Your task to perform on an android device: Go to location settings Image 0: 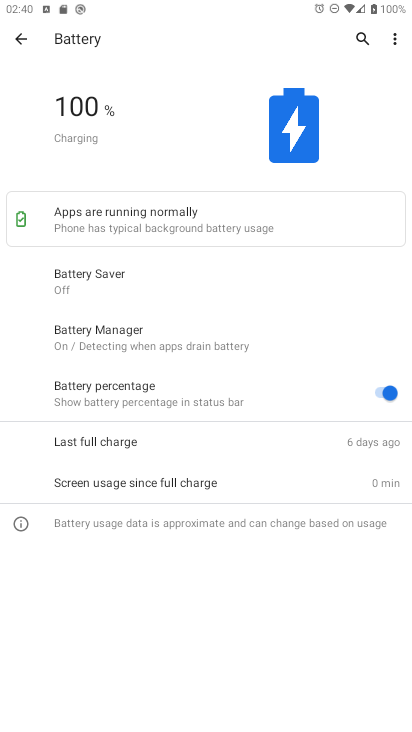
Step 0: press home button
Your task to perform on an android device: Go to location settings Image 1: 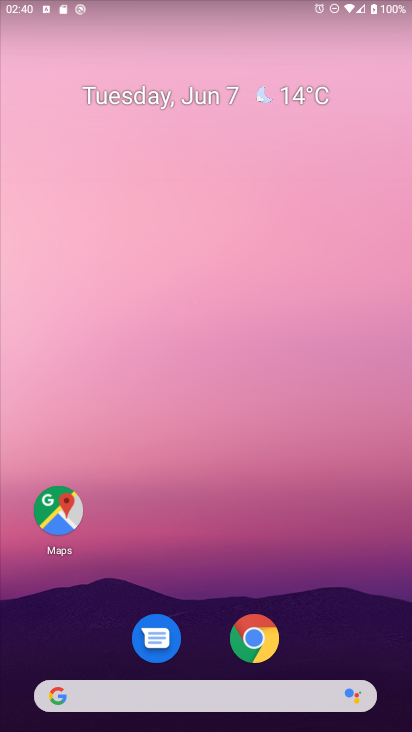
Step 1: drag from (208, 721) to (138, 277)
Your task to perform on an android device: Go to location settings Image 2: 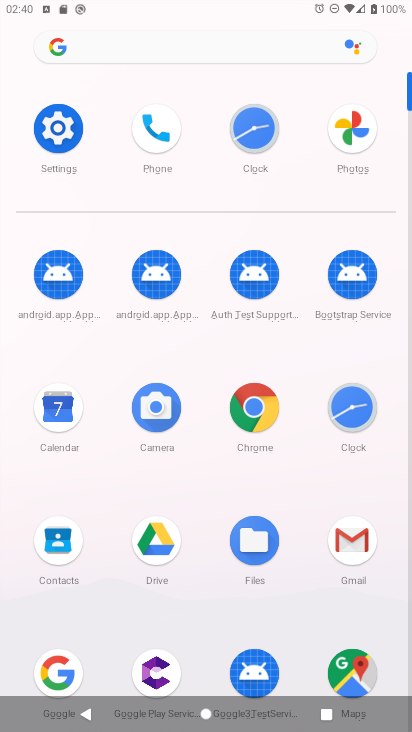
Step 2: click (53, 133)
Your task to perform on an android device: Go to location settings Image 3: 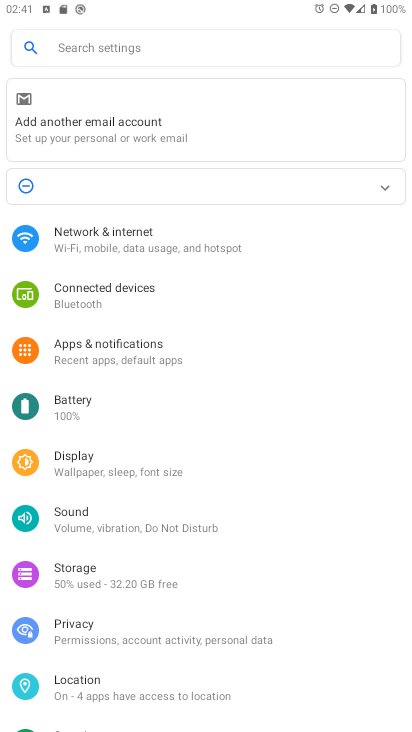
Step 3: click (96, 52)
Your task to perform on an android device: Go to location settings Image 4: 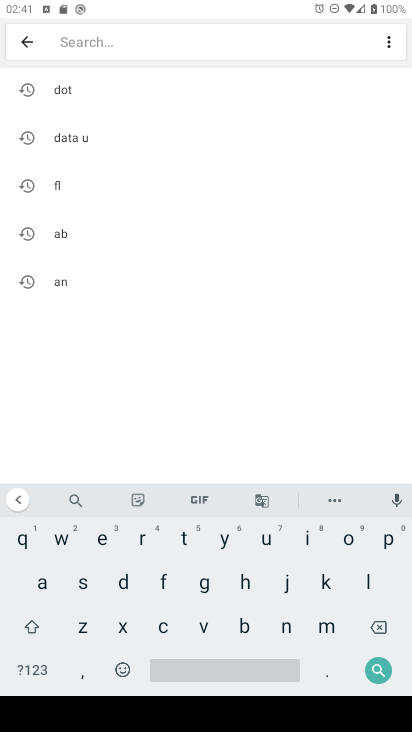
Step 4: click (372, 580)
Your task to perform on an android device: Go to location settings Image 5: 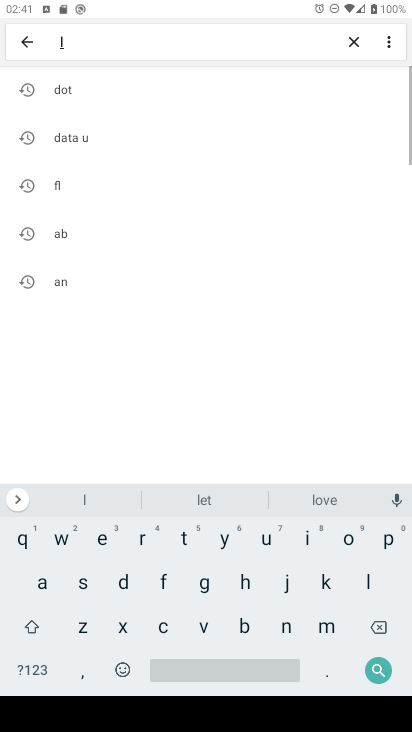
Step 5: click (348, 538)
Your task to perform on an android device: Go to location settings Image 6: 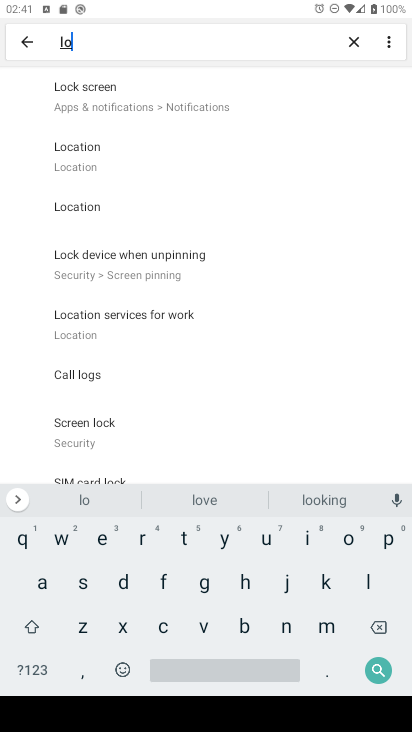
Step 6: click (104, 149)
Your task to perform on an android device: Go to location settings Image 7: 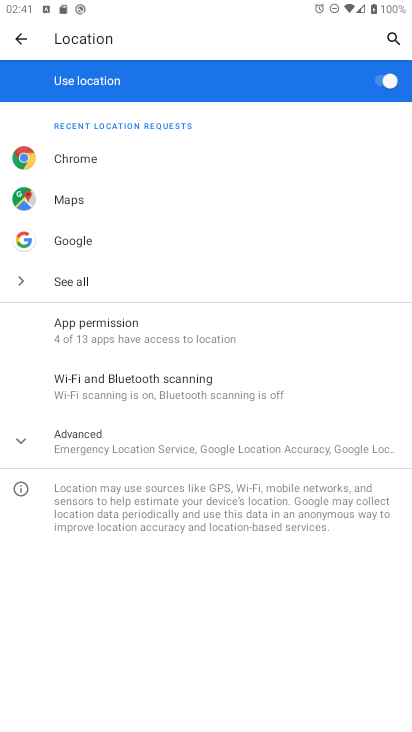
Step 7: task complete